Your task to perform on an android device: What's on my calendar tomorrow? Image 0: 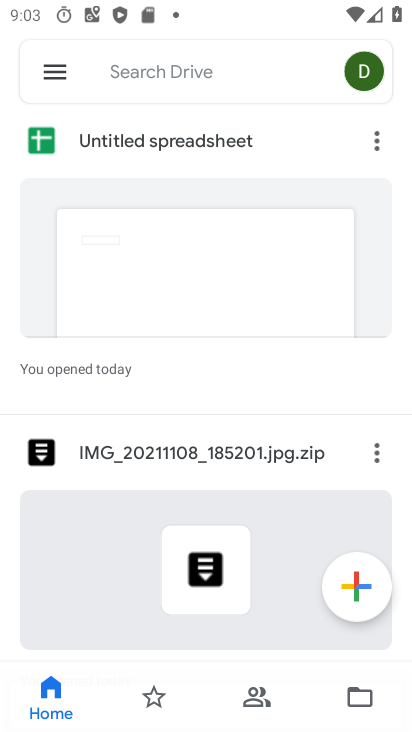
Step 0: press home button
Your task to perform on an android device: What's on my calendar tomorrow? Image 1: 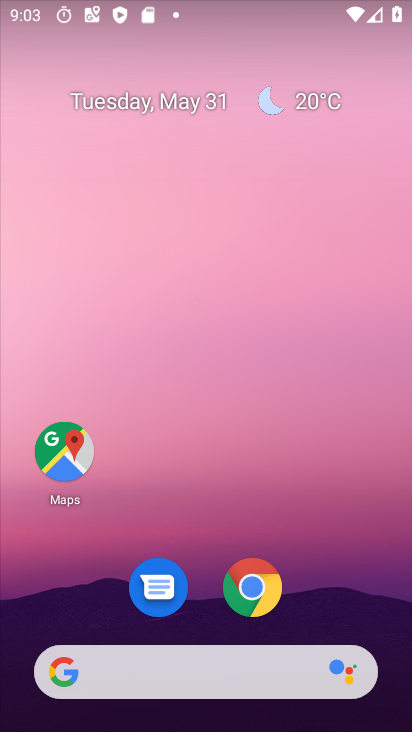
Step 1: click (151, 112)
Your task to perform on an android device: What's on my calendar tomorrow? Image 2: 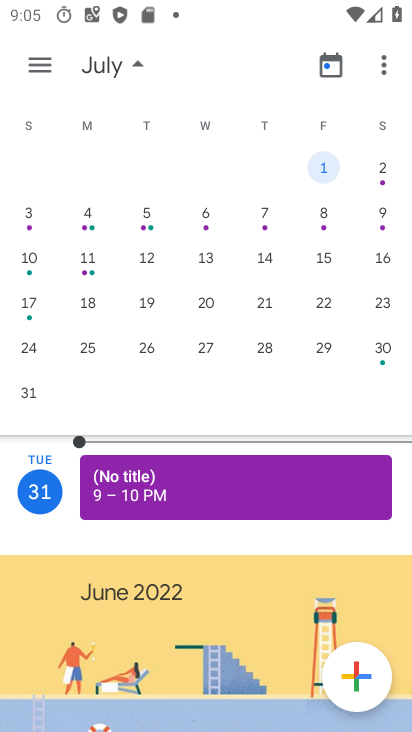
Step 2: task complete